Your task to perform on an android device: Turn off the flashlight Image 0: 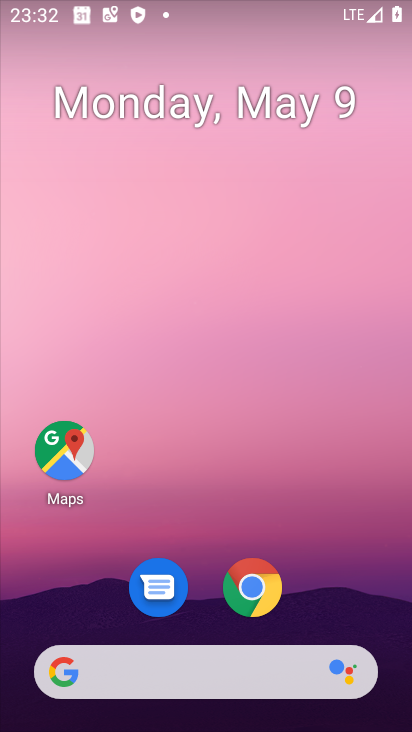
Step 0: drag from (211, 603) to (260, 106)
Your task to perform on an android device: Turn off the flashlight Image 1: 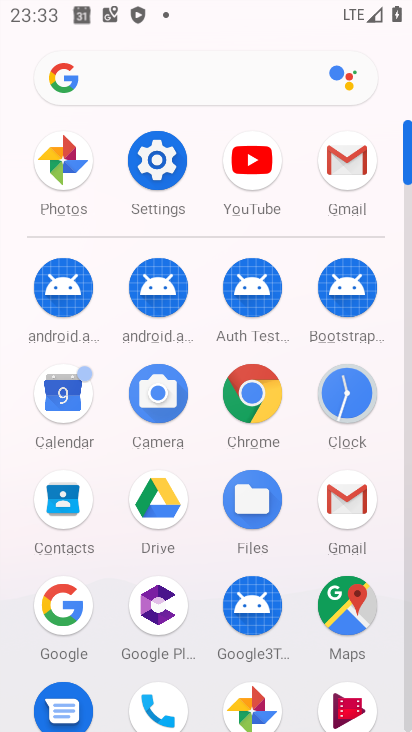
Step 1: click (158, 163)
Your task to perform on an android device: Turn off the flashlight Image 2: 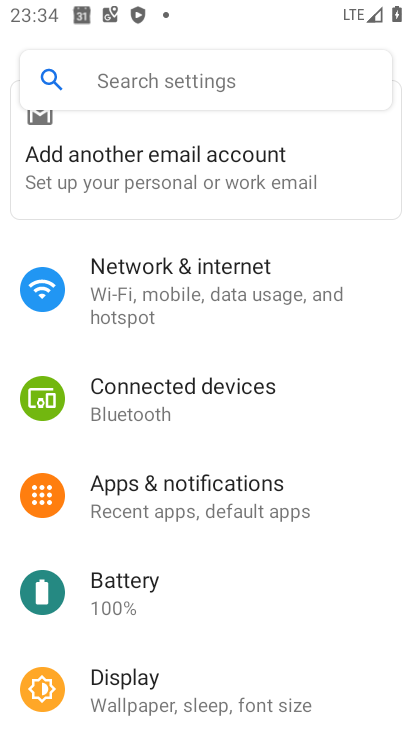
Step 2: task complete